Your task to perform on an android device: clear all cookies in the chrome app Image 0: 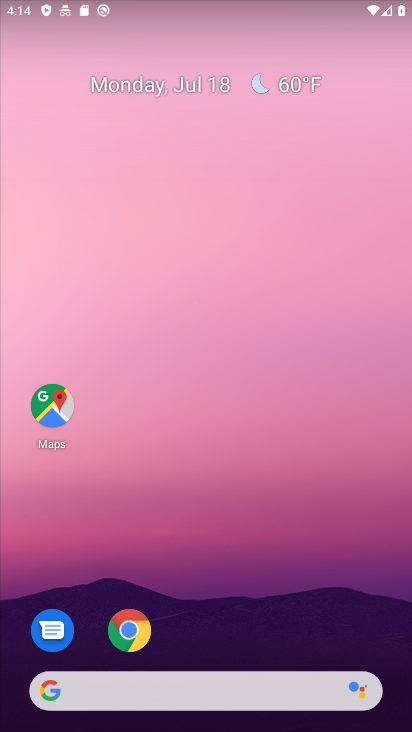
Step 0: drag from (218, 232) to (224, 109)
Your task to perform on an android device: clear all cookies in the chrome app Image 1: 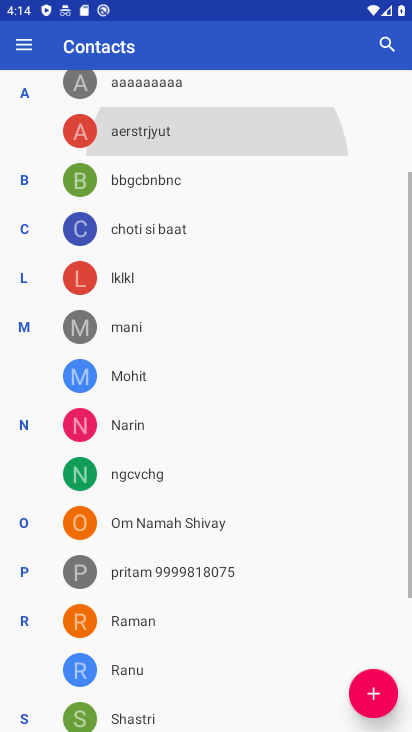
Step 1: drag from (268, 561) to (212, 129)
Your task to perform on an android device: clear all cookies in the chrome app Image 2: 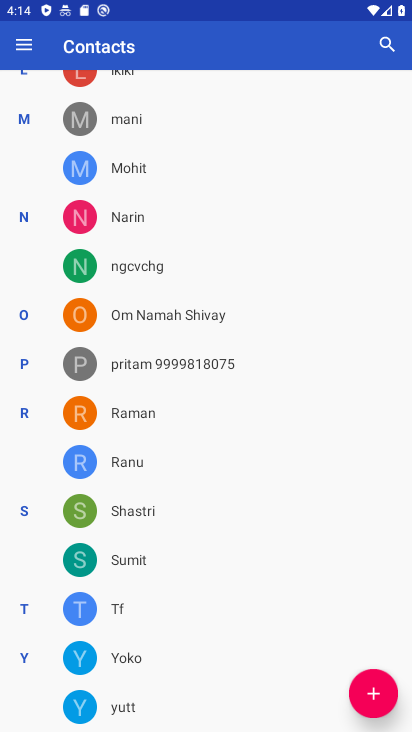
Step 2: press back button
Your task to perform on an android device: clear all cookies in the chrome app Image 3: 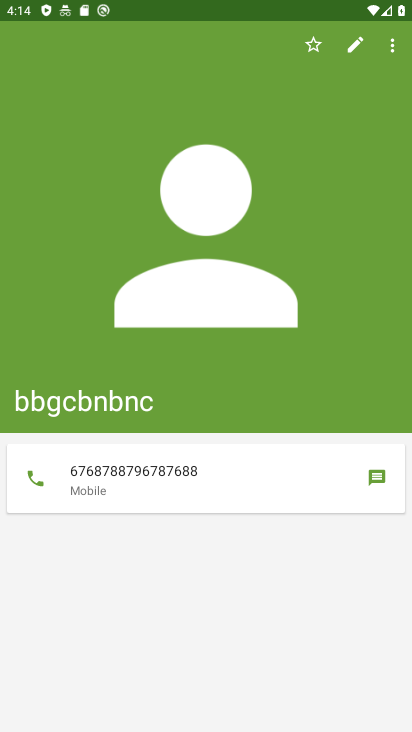
Step 3: press home button
Your task to perform on an android device: clear all cookies in the chrome app Image 4: 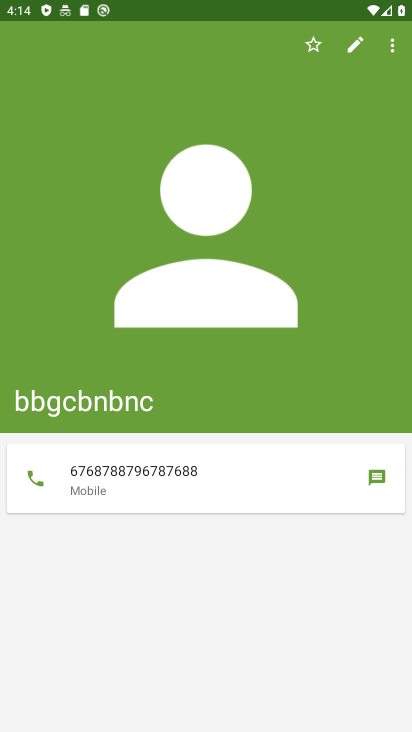
Step 4: press home button
Your task to perform on an android device: clear all cookies in the chrome app Image 5: 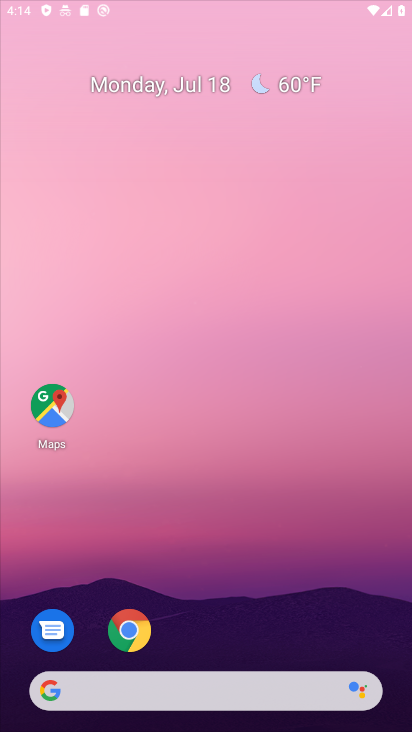
Step 5: press home button
Your task to perform on an android device: clear all cookies in the chrome app Image 6: 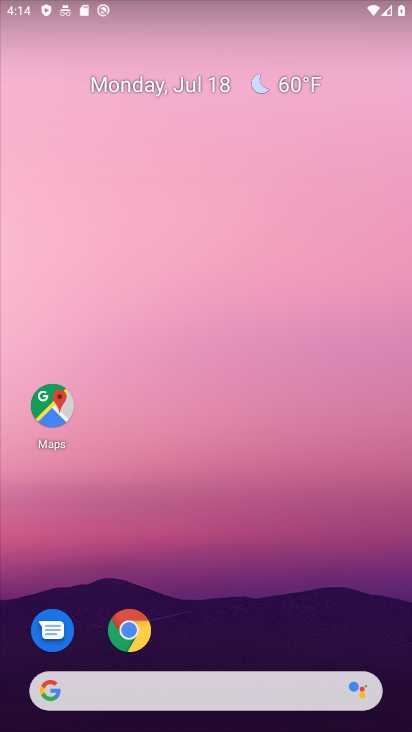
Step 6: drag from (186, 374) to (150, 250)
Your task to perform on an android device: clear all cookies in the chrome app Image 7: 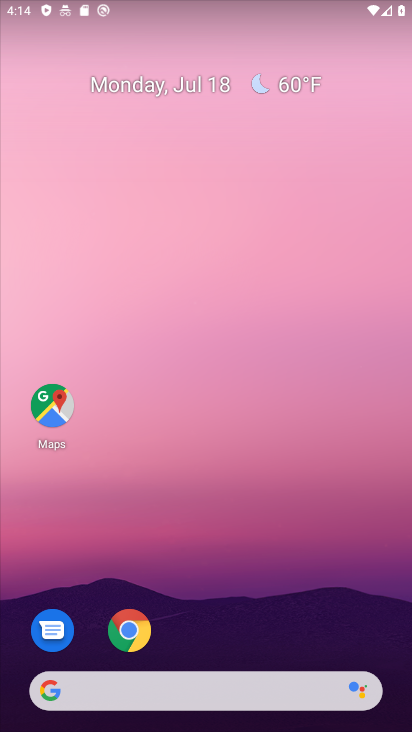
Step 7: drag from (252, 629) to (173, 248)
Your task to perform on an android device: clear all cookies in the chrome app Image 8: 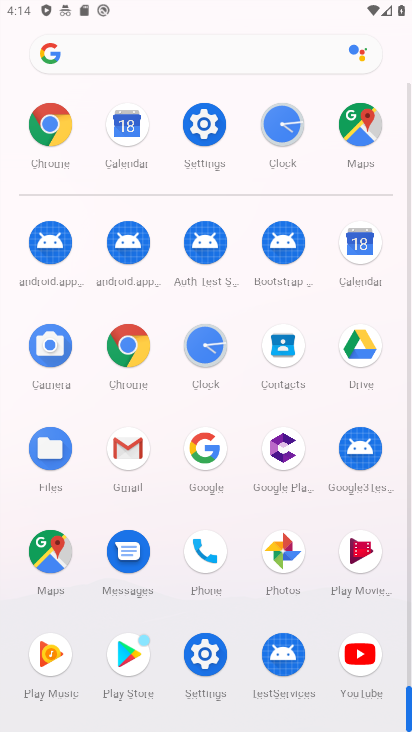
Step 8: click (121, 345)
Your task to perform on an android device: clear all cookies in the chrome app Image 9: 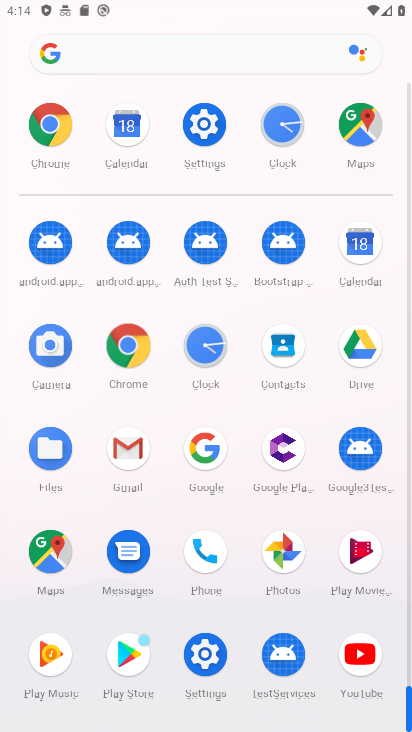
Step 9: click (134, 338)
Your task to perform on an android device: clear all cookies in the chrome app Image 10: 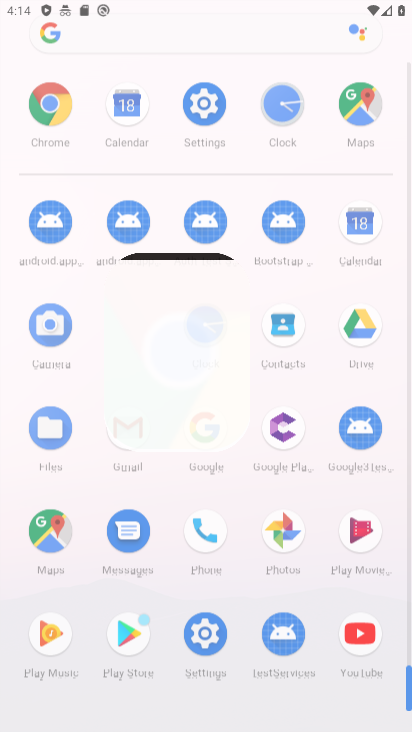
Step 10: click (134, 338)
Your task to perform on an android device: clear all cookies in the chrome app Image 11: 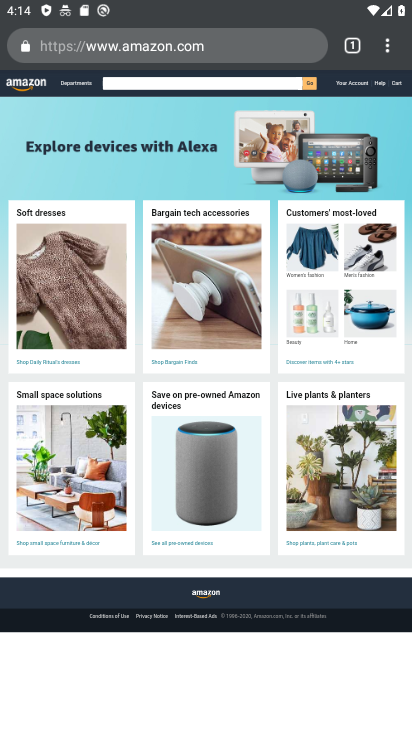
Step 11: drag from (388, 42) to (223, 462)
Your task to perform on an android device: clear all cookies in the chrome app Image 12: 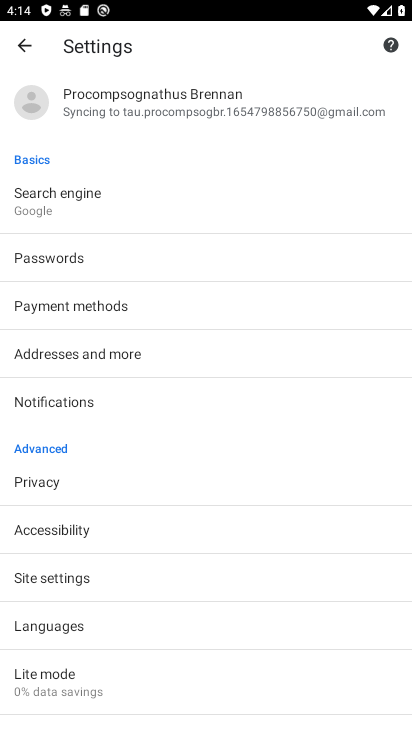
Step 12: click (29, 572)
Your task to perform on an android device: clear all cookies in the chrome app Image 13: 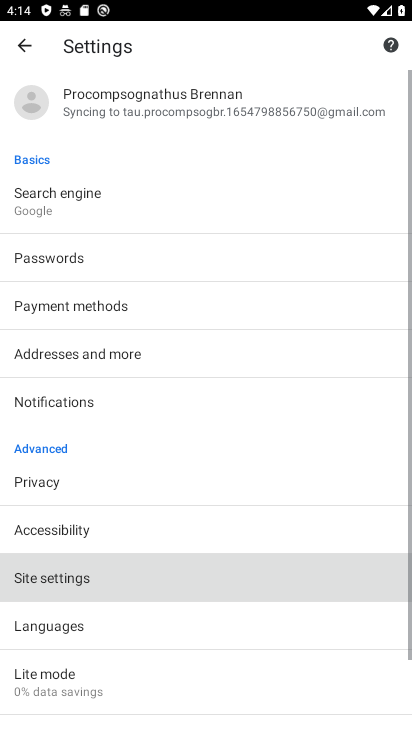
Step 13: click (31, 572)
Your task to perform on an android device: clear all cookies in the chrome app Image 14: 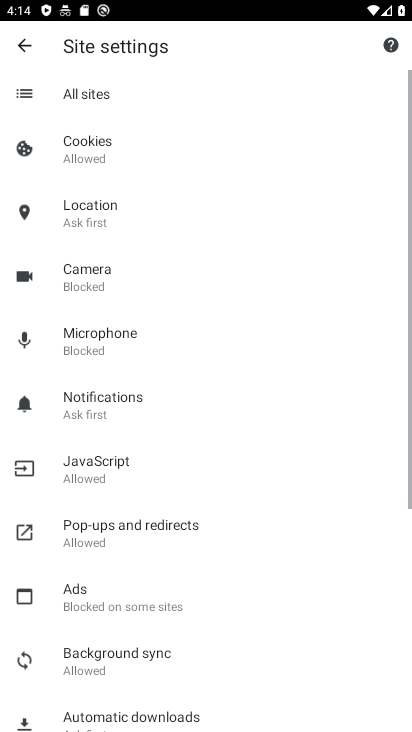
Step 14: click (85, 151)
Your task to perform on an android device: clear all cookies in the chrome app Image 15: 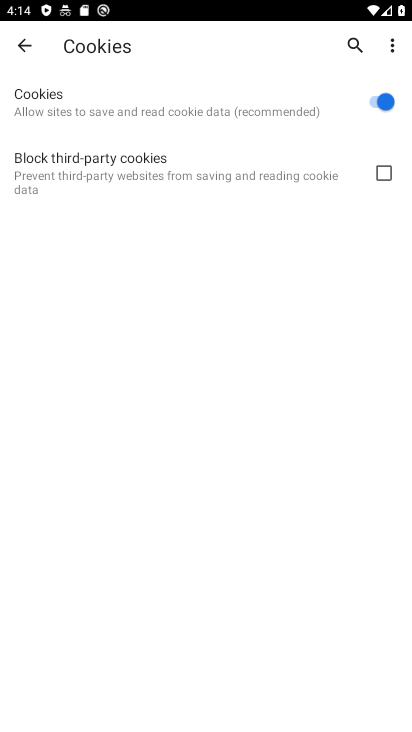
Step 15: click (381, 99)
Your task to perform on an android device: clear all cookies in the chrome app Image 16: 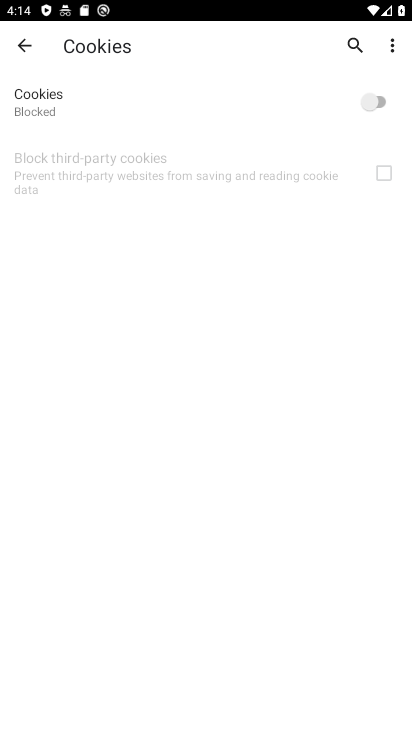
Step 16: task complete